Your task to perform on an android device: add a contact Image 0: 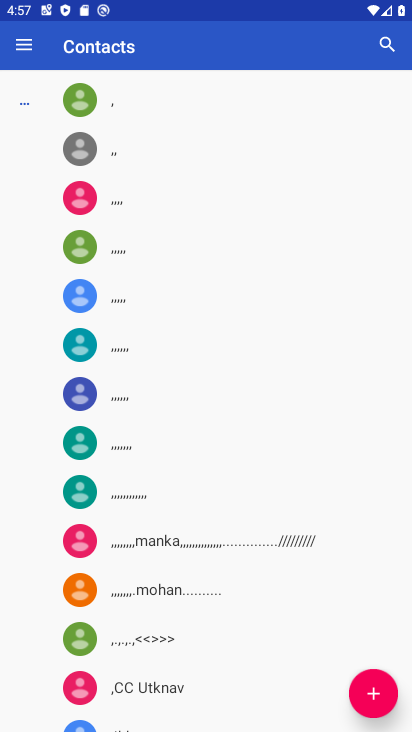
Step 0: click (378, 700)
Your task to perform on an android device: add a contact Image 1: 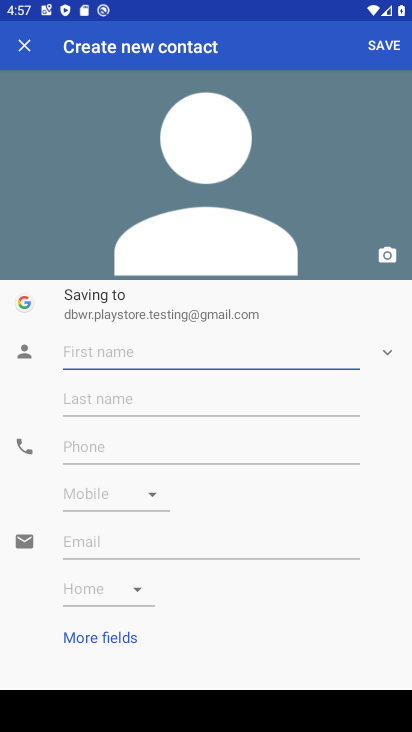
Step 1: click (301, 357)
Your task to perform on an android device: add a contact Image 2: 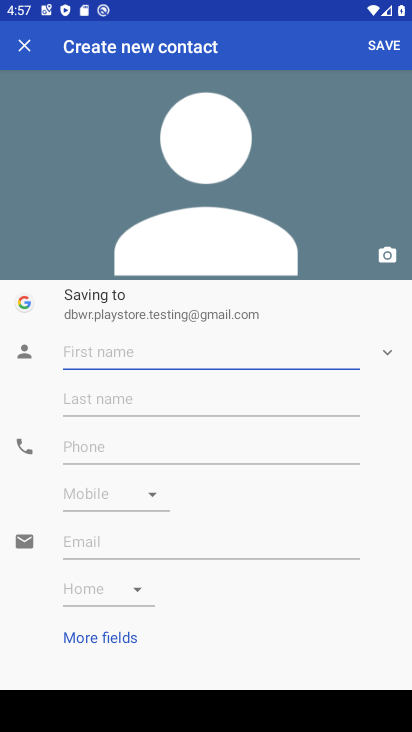
Step 2: type "akbar"
Your task to perform on an android device: add a contact Image 3: 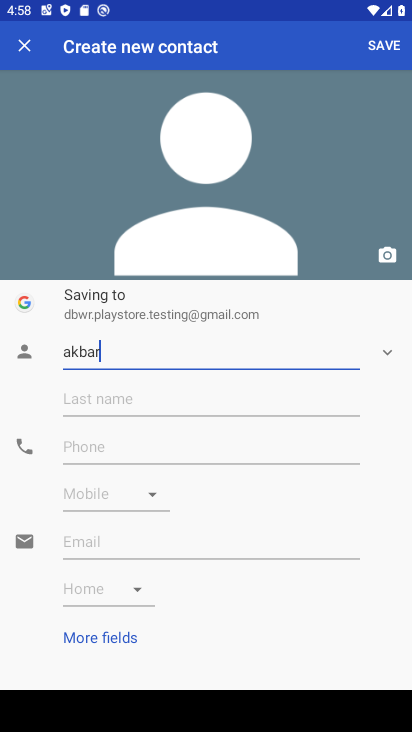
Step 3: type ""
Your task to perform on an android device: add a contact Image 4: 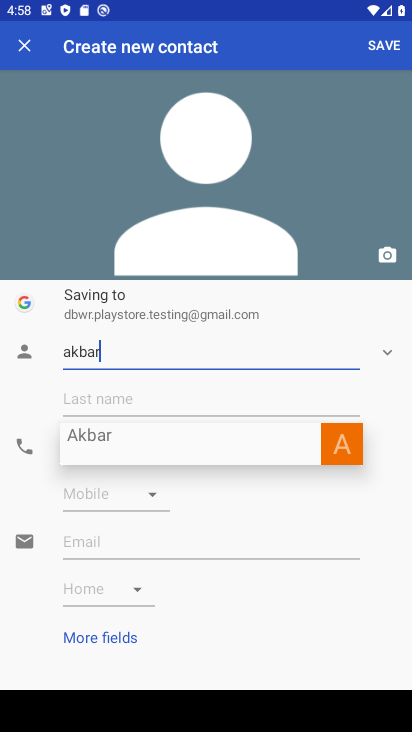
Step 4: type "h"
Your task to perform on an android device: add a contact Image 5: 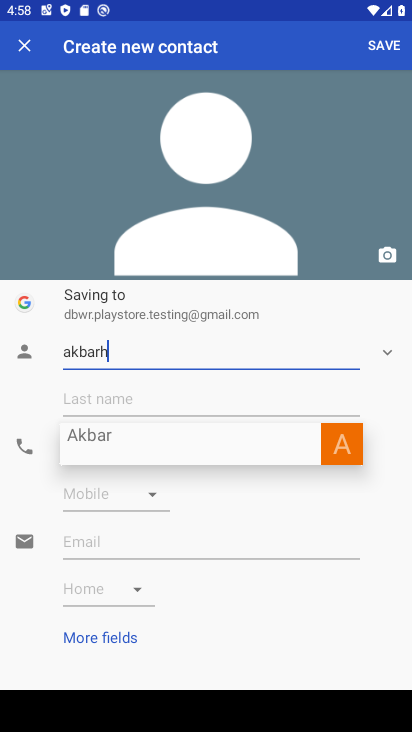
Step 5: type ""
Your task to perform on an android device: add a contact Image 6: 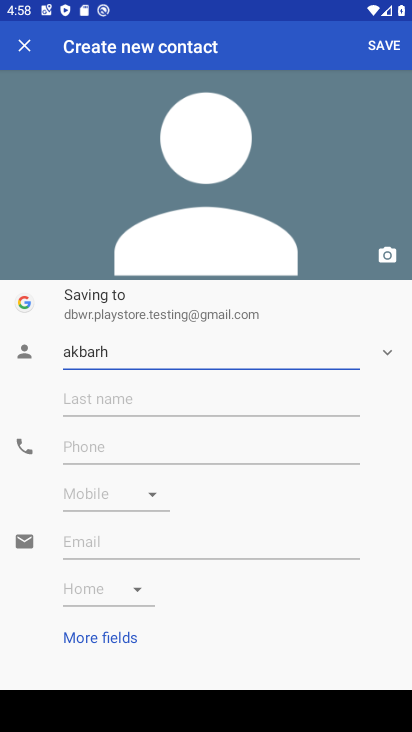
Step 6: click (393, 38)
Your task to perform on an android device: add a contact Image 7: 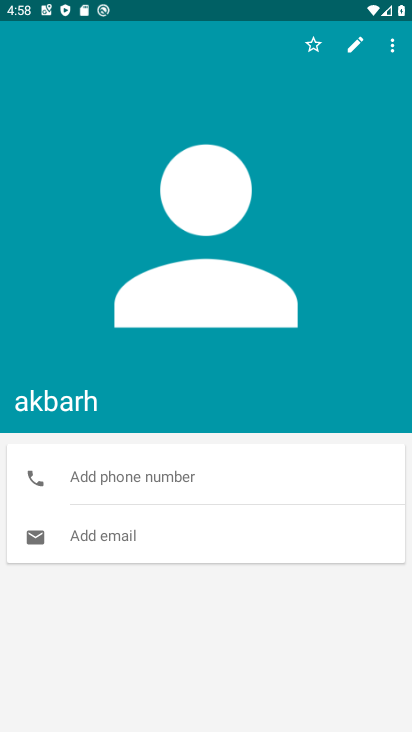
Step 7: task complete